Your task to perform on an android device: delete the emails in spam in the gmail app Image 0: 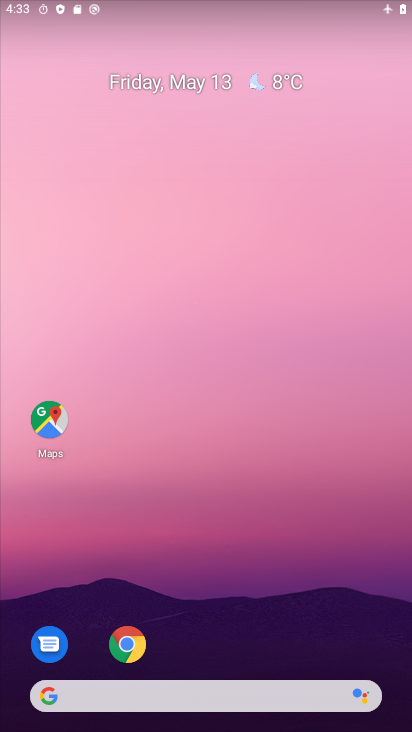
Step 0: drag from (259, 620) to (184, 184)
Your task to perform on an android device: delete the emails in spam in the gmail app Image 1: 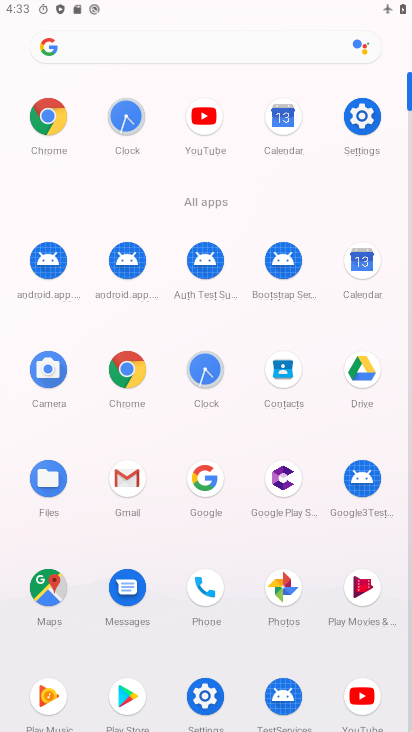
Step 1: click (139, 490)
Your task to perform on an android device: delete the emails in spam in the gmail app Image 2: 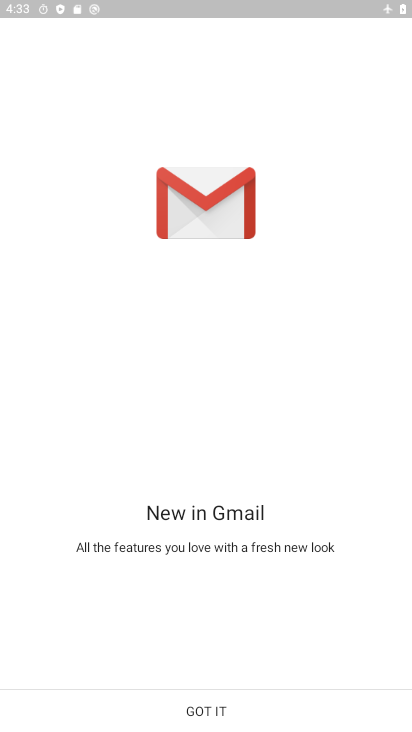
Step 2: click (238, 701)
Your task to perform on an android device: delete the emails in spam in the gmail app Image 3: 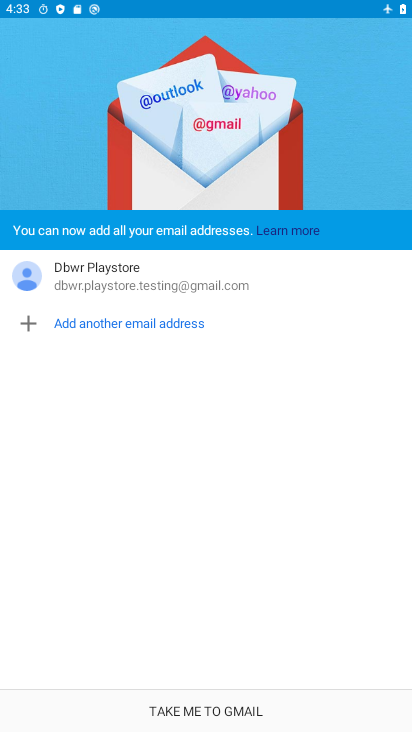
Step 3: click (228, 696)
Your task to perform on an android device: delete the emails in spam in the gmail app Image 4: 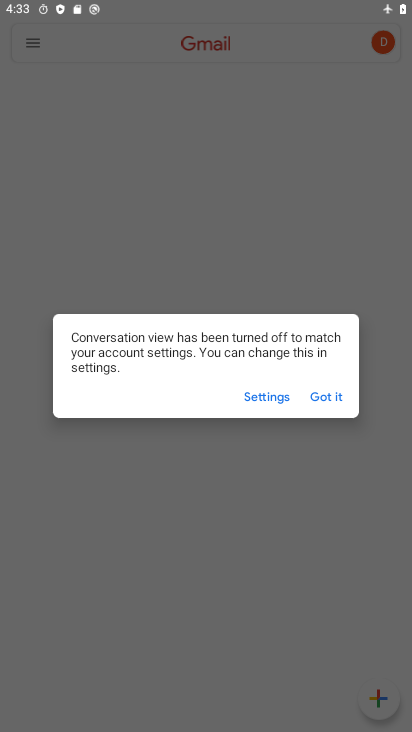
Step 4: click (333, 393)
Your task to perform on an android device: delete the emails in spam in the gmail app Image 5: 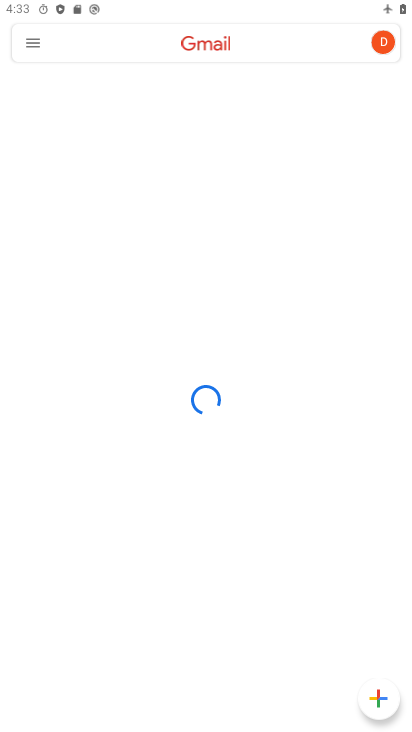
Step 5: click (27, 46)
Your task to perform on an android device: delete the emails in spam in the gmail app Image 6: 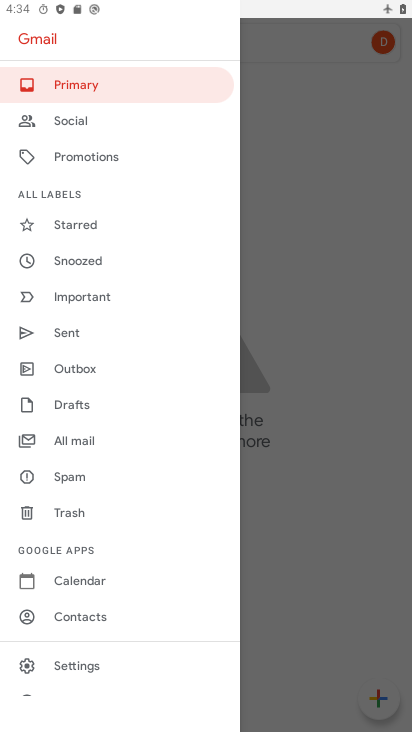
Step 6: click (78, 481)
Your task to perform on an android device: delete the emails in spam in the gmail app Image 7: 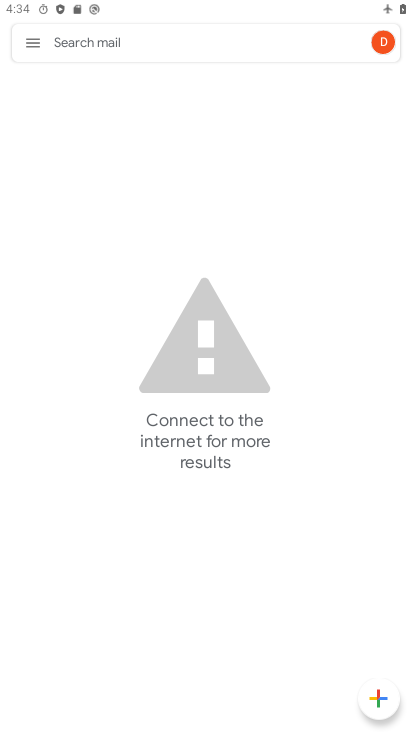
Step 7: task complete